Your task to perform on an android device: move an email to a new category in the gmail app Image 0: 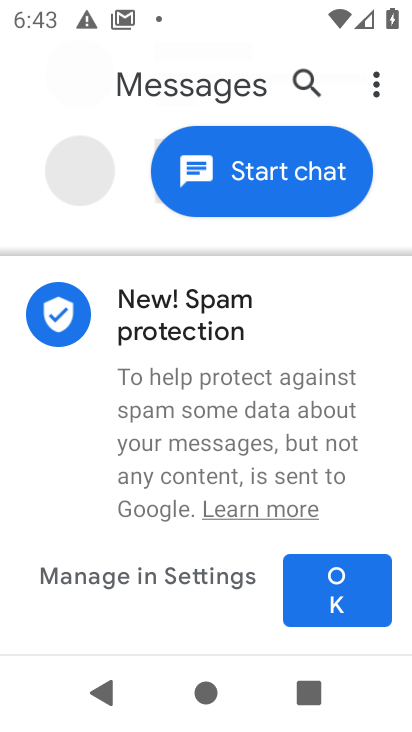
Step 0: task complete